Your task to perform on an android device: empty trash in the gmail app Image 0: 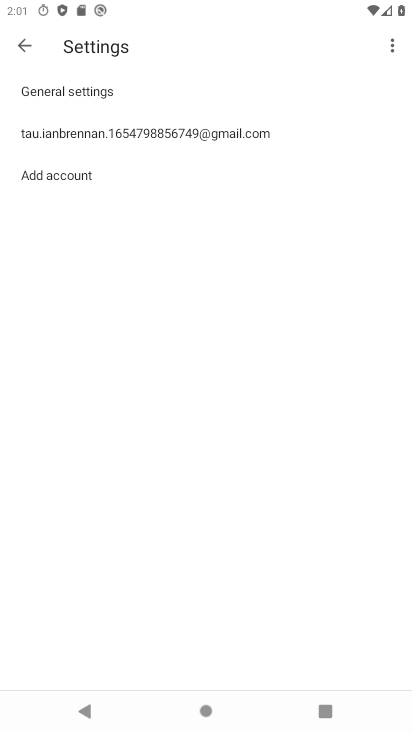
Step 0: press home button
Your task to perform on an android device: empty trash in the gmail app Image 1: 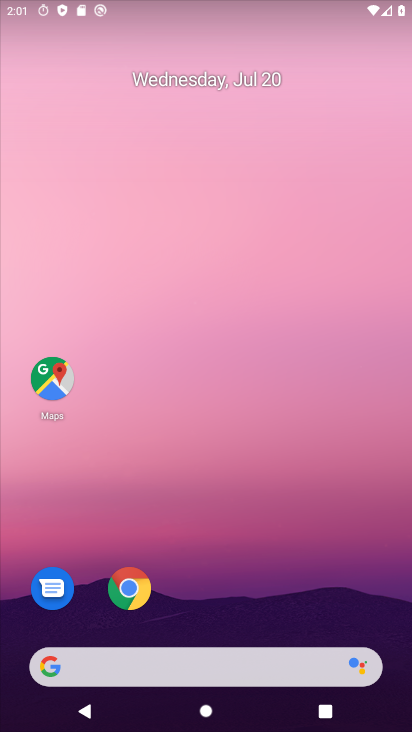
Step 1: drag from (265, 647) to (315, 0)
Your task to perform on an android device: empty trash in the gmail app Image 2: 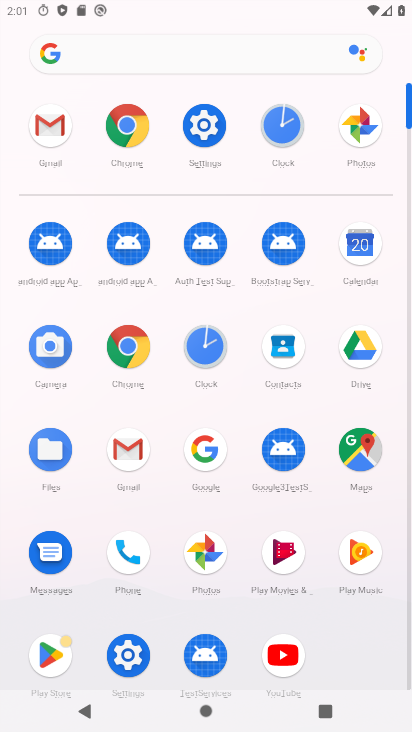
Step 2: click (144, 450)
Your task to perform on an android device: empty trash in the gmail app Image 3: 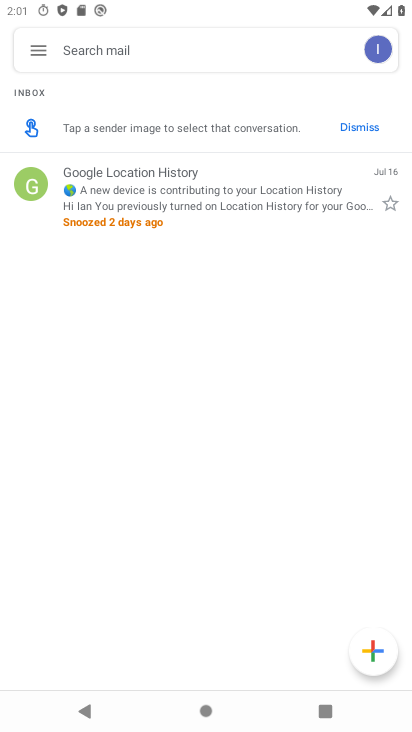
Step 3: click (40, 47)
Your task to perform on an android device: empty trash in the gmail app Image 4: 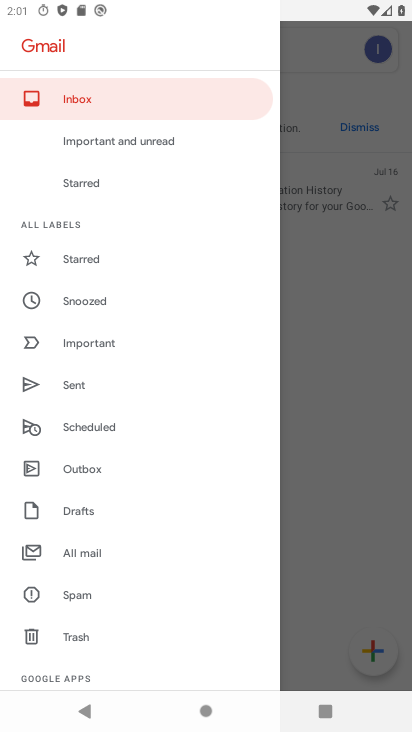
Step 4: click (63, 625)
Your task to perform on an android device: empty trash in the gmail app Image 5: 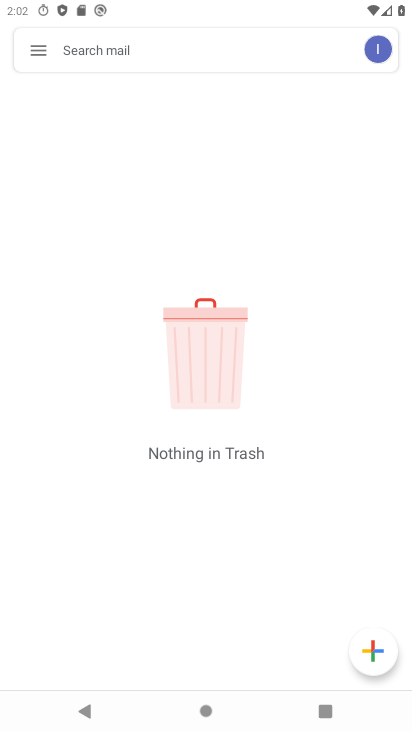
Step 5: click (25, 56)
Your task to perform on an android device: empty trash in the gmail app Image 6: 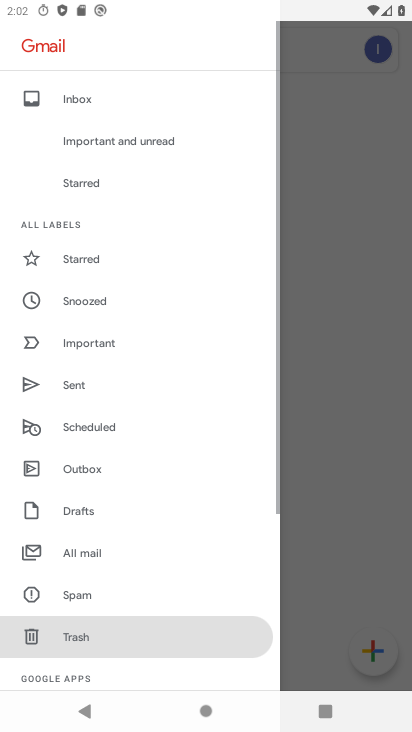
Step 6: task complete